Your task to perform on an android device: Open Chrome and go to settings Image 0: 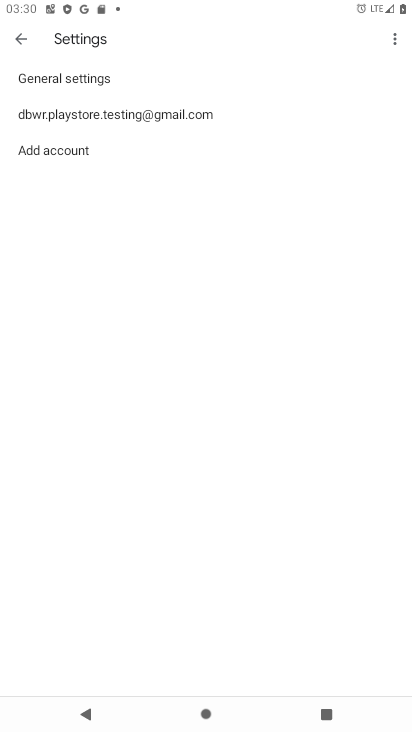
Step 0: press home button
Your task to perform on an android device: Open Chrome and go to settings Image 1: 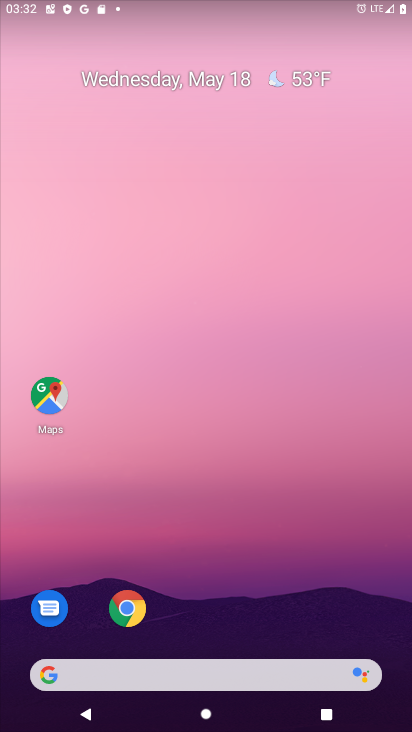
Step 1: click (127, 609)
Your task to perform on an android device: Open Chrome and go to settings Image 2: 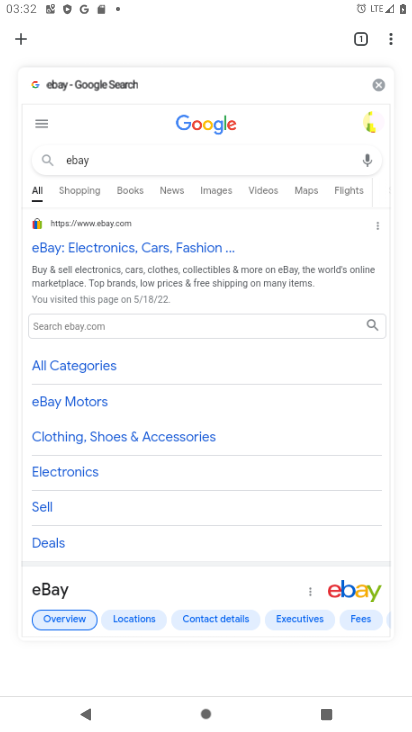
Step 2: click (395, 41)
Your task to perform on an android device: Open Chrome and go to settings Image 3: 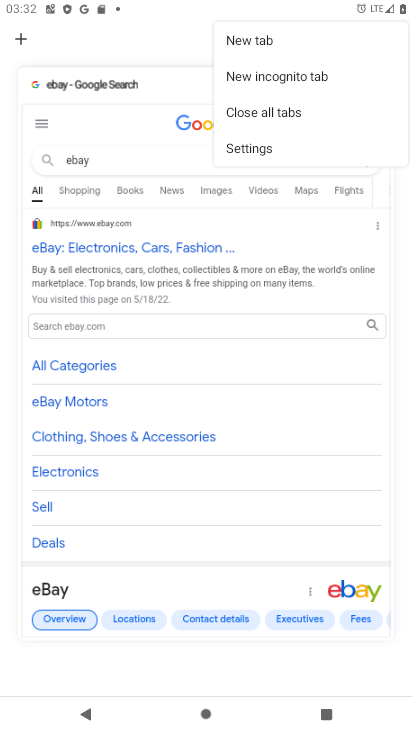
Step 3: click (271, 144)
Your task to perform on an android device: Open Chrome and go to settings Image 4: 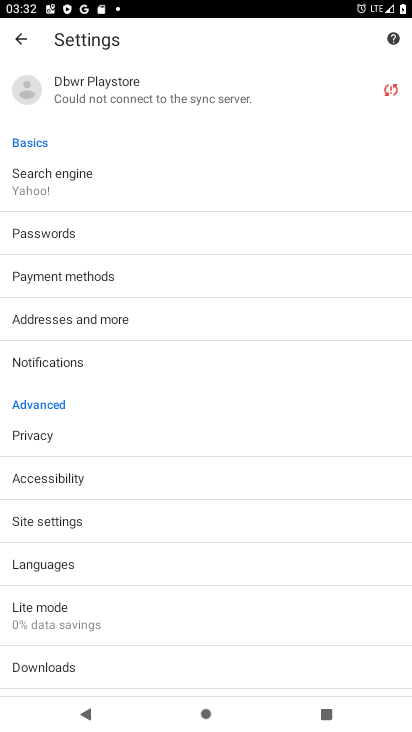
Step 4: task complete